Your task to perform on an android device: Show me the alarms in the clock app Image 0: 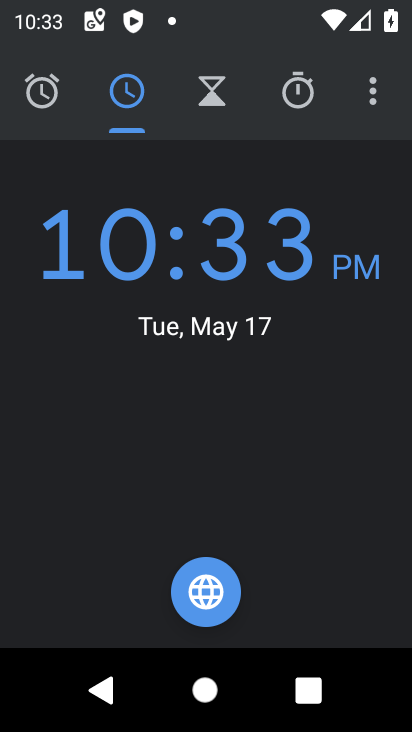
Step 0: press home button
Your task to perform on an android device: Show me the alarms in the clock app Image 1: 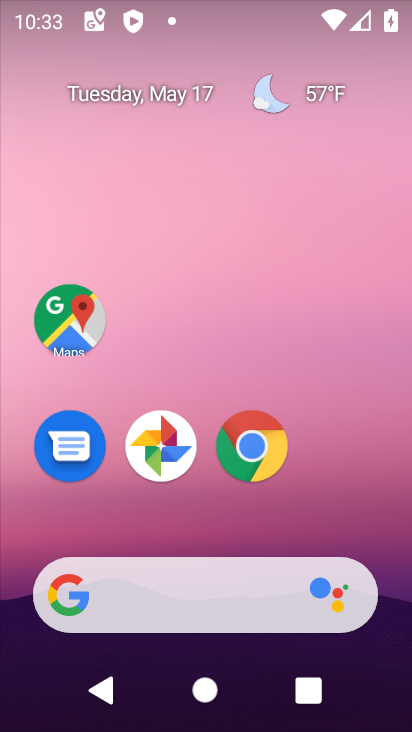
Step 1: drag from (192, 572) to (187, 253)
Your task to perform on an android device: Show me the alarms in the clock app Image 2: 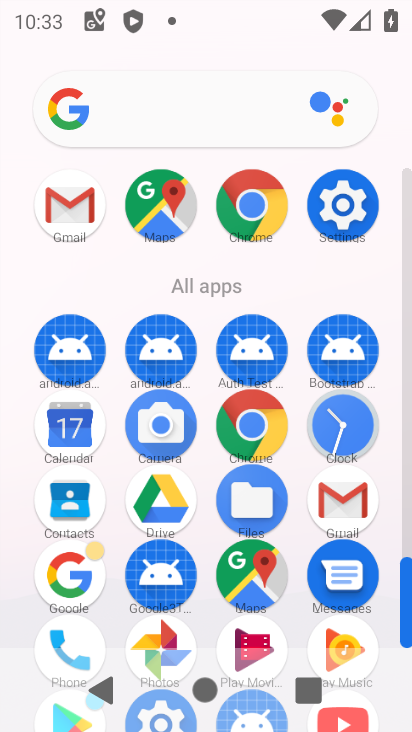
Step 2: click (354, 430)
Your task to perform on an android device: Show me the alarms in the clock app Image 3: 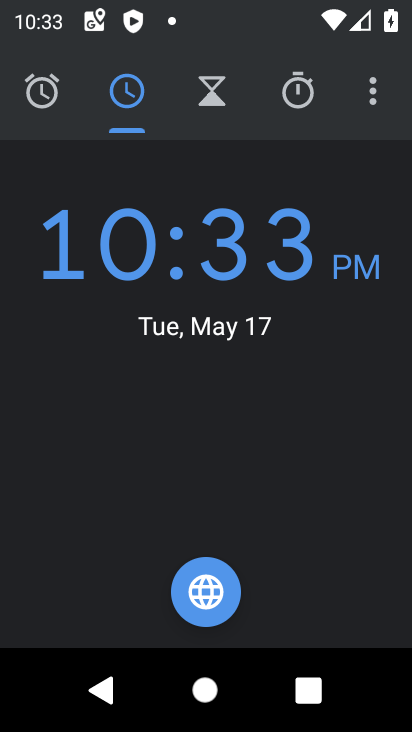
Step 3: click (48, 111)
Your task to perform on an android device: Show me the alarms in the clock app Image 4: 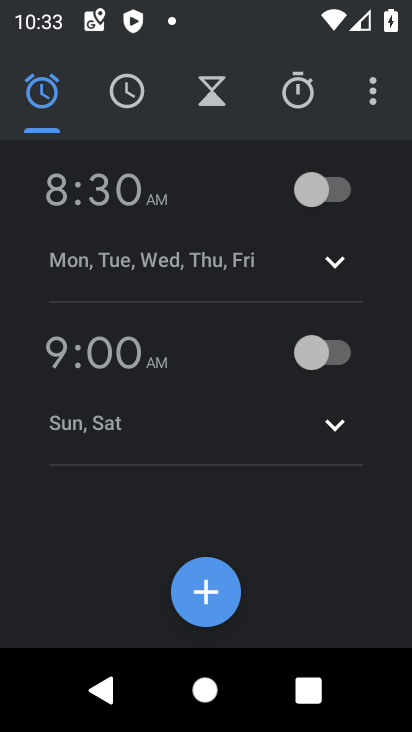
Step 4: task complete